Your task to perform on an android device: Open the Play Movies app and select the watchlist tab. Image 0: 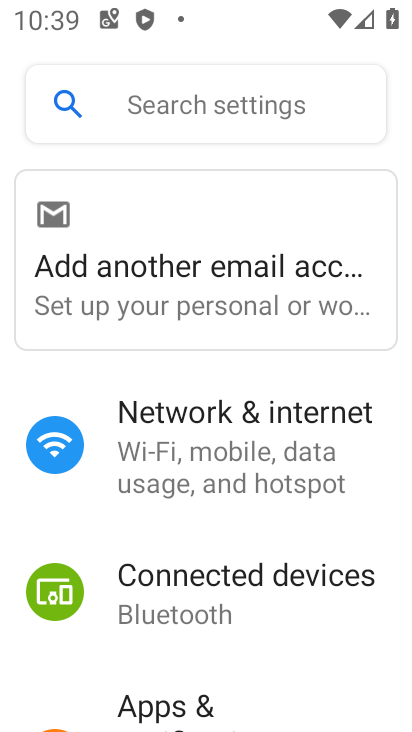
Step 0: press home button
Your task to perform on an android device: Open the Play Movies app and select the watchlist tab. Image 1: 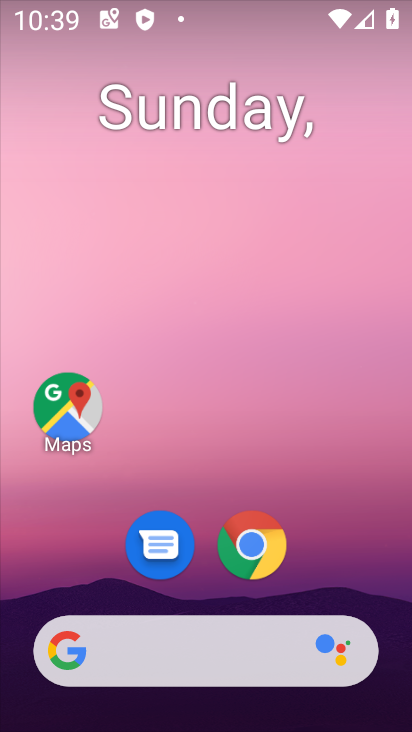
Step 1: drag from (56, 620) to (287, 127)
Your task to perform on an android device: Open the Play Movies app and select the watchlist tab. Image 2: 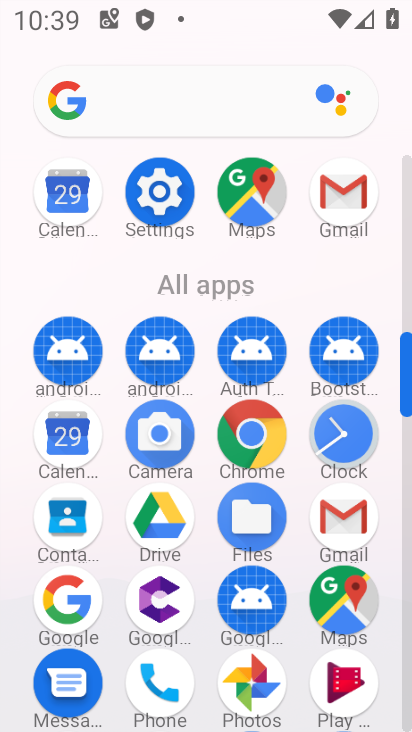
Step 2: drag from (178, 570) to (236, 294)
Your task to perform on an android device: Open the Play Movies app and select the watchlist tab. Image 3: 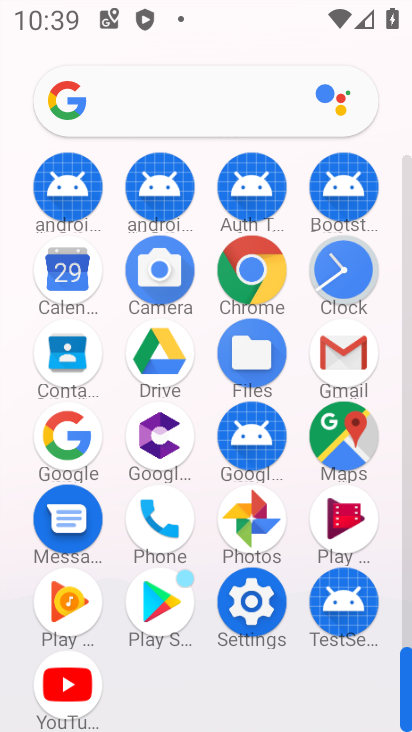
Step 3: click (354, 507)
Your task to perform on an android device: Open the Play Movies app and select the watchlist tab. Image 4: 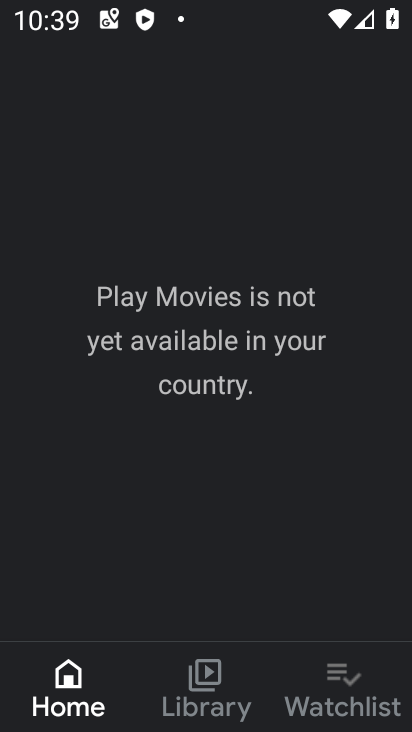
Step 4: click (349, 694)
Your task to perform on an android device: Open the Play Movies app and select the watchlist tab. Image 5: 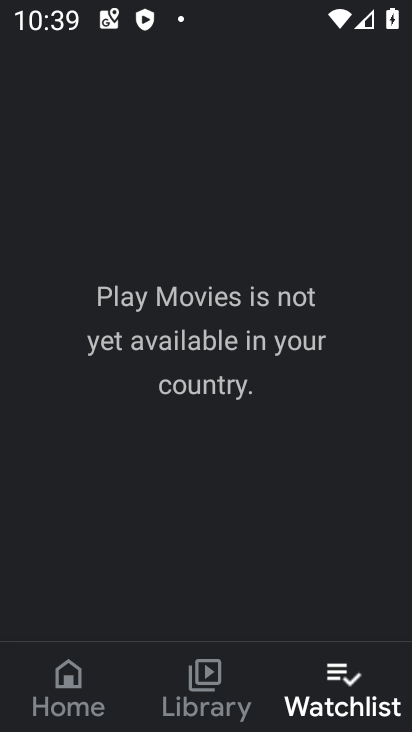
Step 5: task complete